Your task to perform on an android device: Open Chrome and go to settings Image 0: 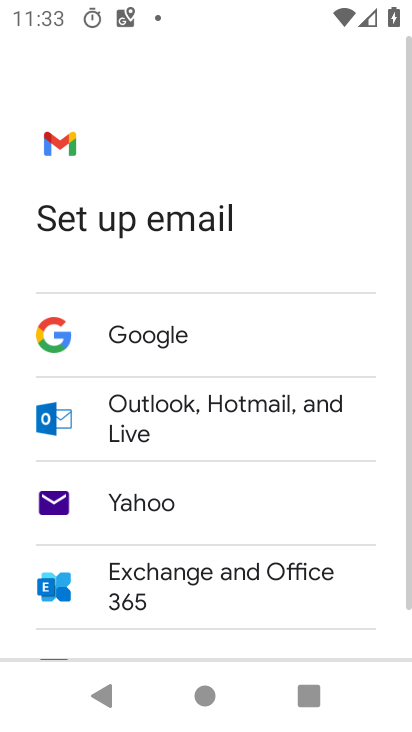
Step 0: press home button
Your task to perform on an android device: Open Chrome and go to settings Image 1: 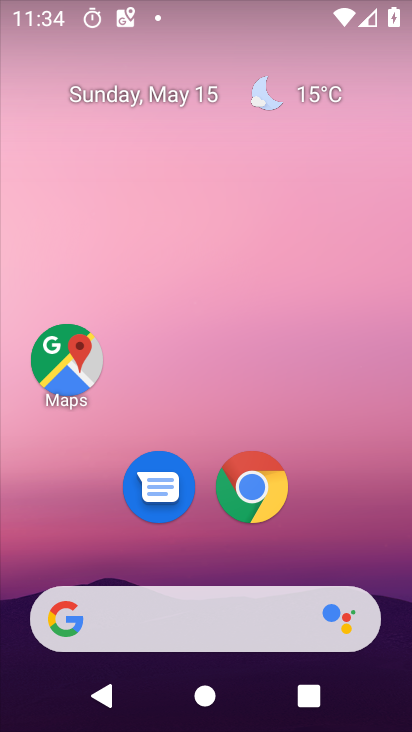
Step 1: click (257, 481)
Your task to perform on an android device: Open Chrome and go to settings Image 2: 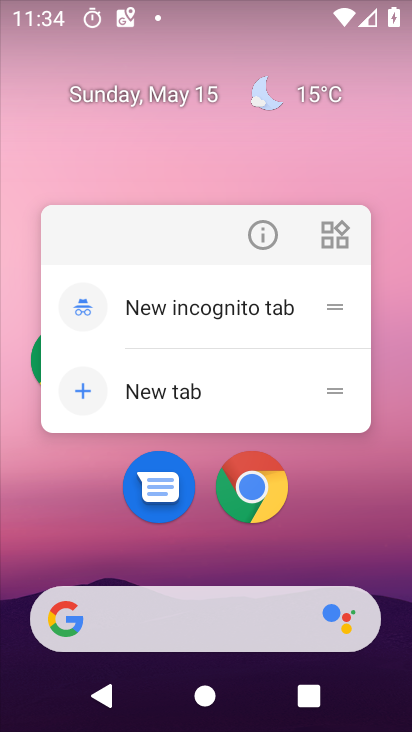
Step 2: click (258, 481)
Your task to perform on an android device: Open Chrome and go to settings Image 3: 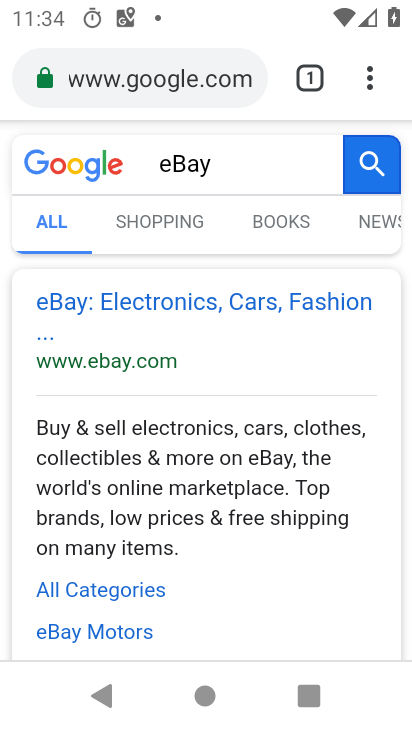
Step 3: click (366, 73)
Your task to perform on an android device: Open Chrome and go to settings Image 4: 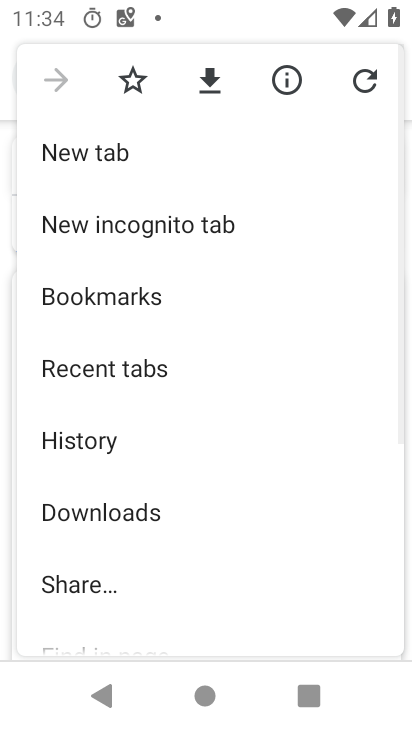
Step 4: drag from (261, 591) to (251, 411)
Your task to perform on an android device: Open Chrome and go to settings Image 5: 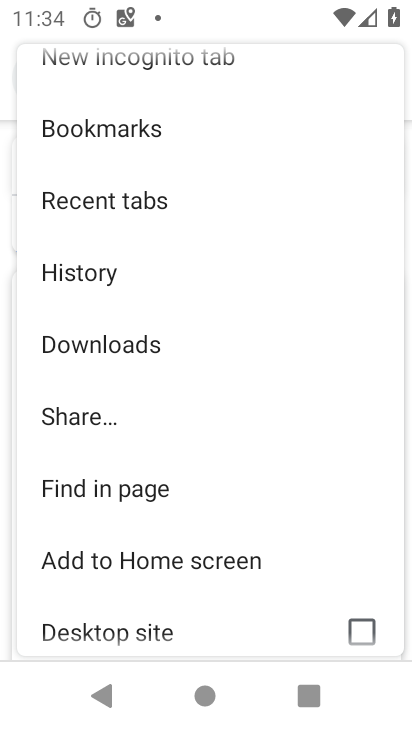
Step 5: drag from (325, 561) to (318, 369)
Your task to perform on an android device: Open Chrome and go to settings Image 6: 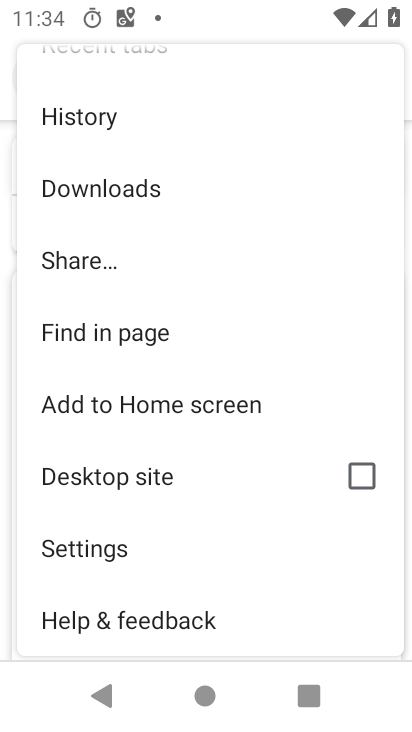
Step 6: click (76, 539)
Your task to perform on an android device: Open Chrome and go to settings Image 7: 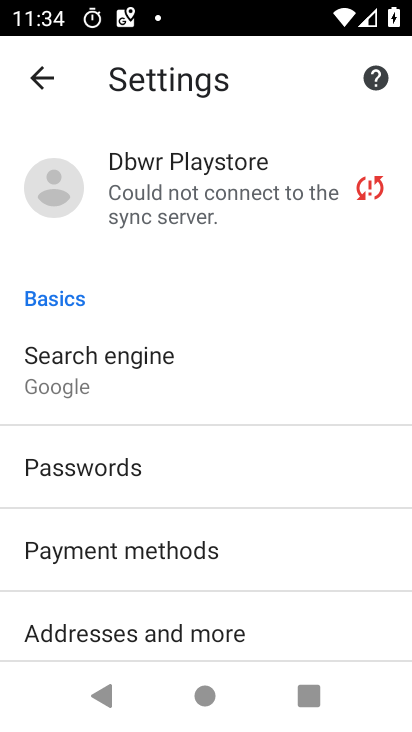
Step 7: task complete